Your task to perform on an android device: see tabs open on other devices in the chrome app Image 0: 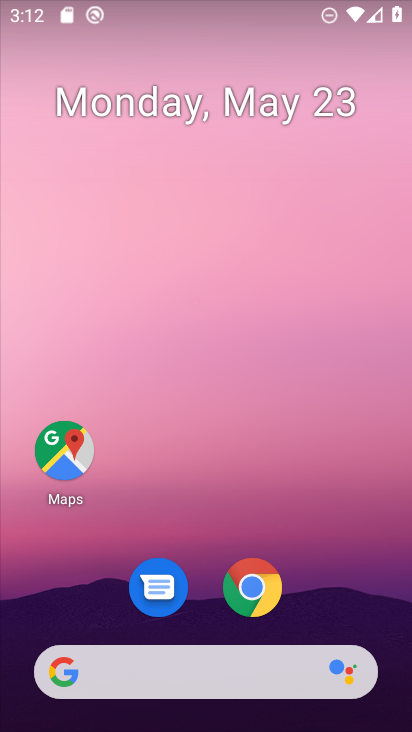
Step 0: drag from (209, 607) to (252, 0)
Your task to perform on an android device: see tabs open on other devices in the chrome app Image 1: 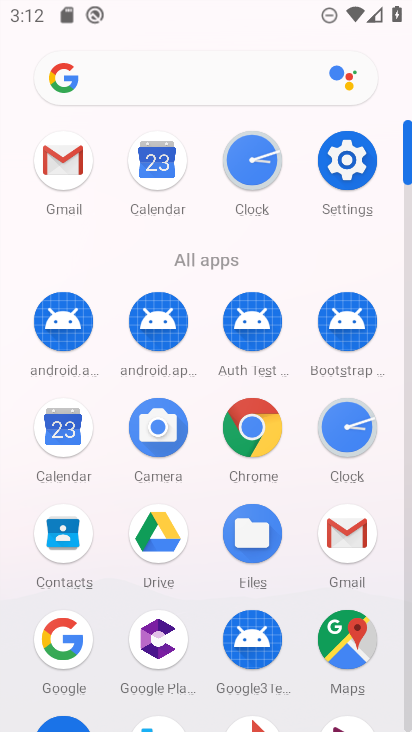
Step 1: click (244, 422)
Your task to perform on an android device: see tabs open on other devices in the chrome app Image 2: 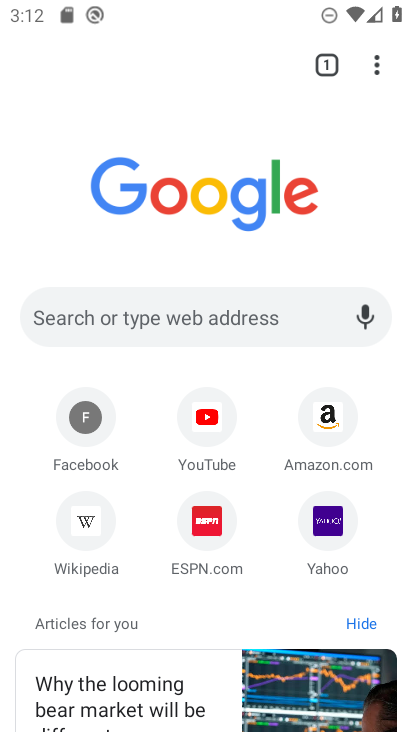
Step 2: click (384, 74)
Your task to perform on an android device: see tabs open on other devices in the chrome app Image 3: 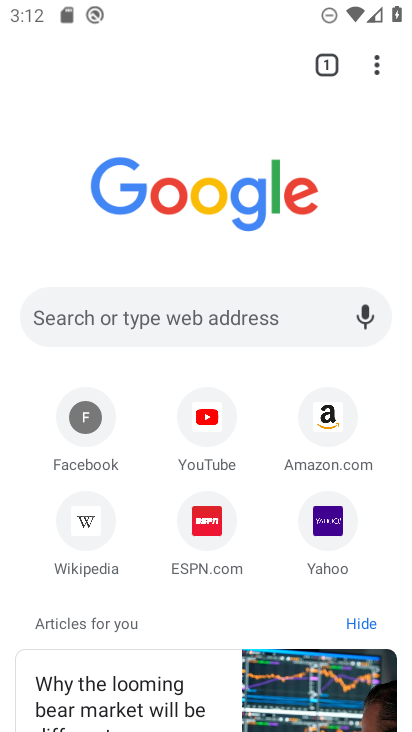
Step 3: click (377, 61)
Your task to perform on an android device: see tabs open on other devices in the chrome app Image 4: 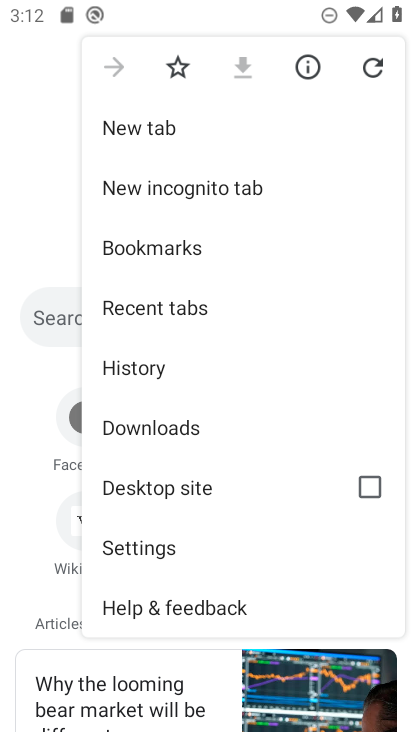
Step 4: click (158, 305)
Your task to perform on an android device: see tabs open on other devices in the chrome app Image 5: 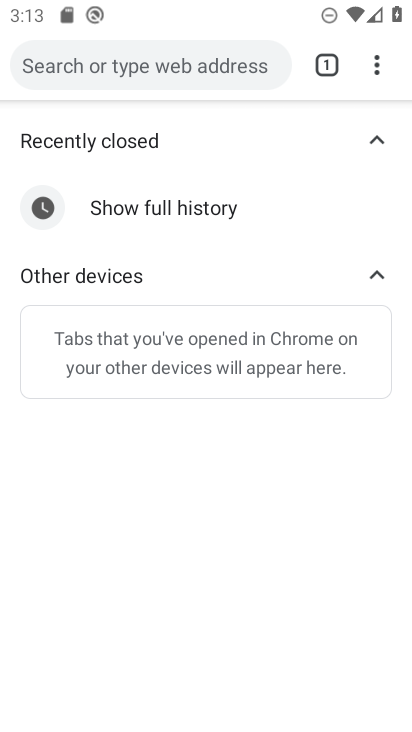
Step 5: task complete